Your task to perform on an android device: Go to Wikipedia Image 0: 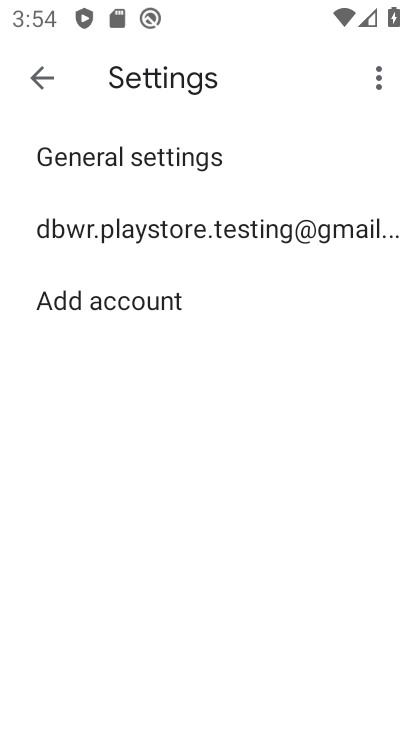
Step 0: press home button
Your task to perform on an android device: Go to Wikipedia Image 1: 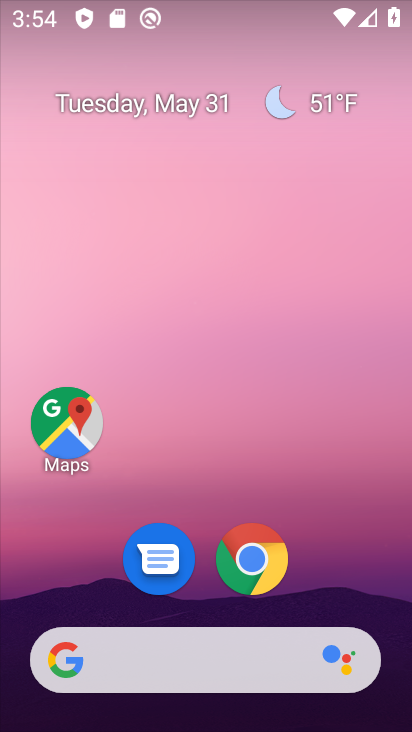
Step 1: click (246, 551)
Your task to perform on an android device: Go to Wikipedia Image 2: 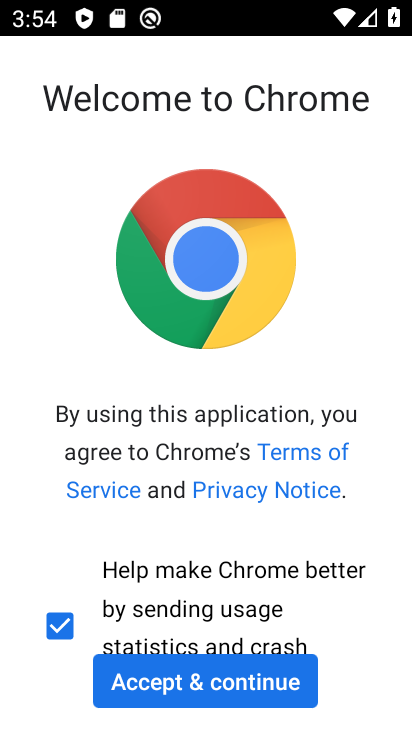
Step 2: click (219, 680)
Your task to perform on an android device: Go to Wikipedia Image 3: 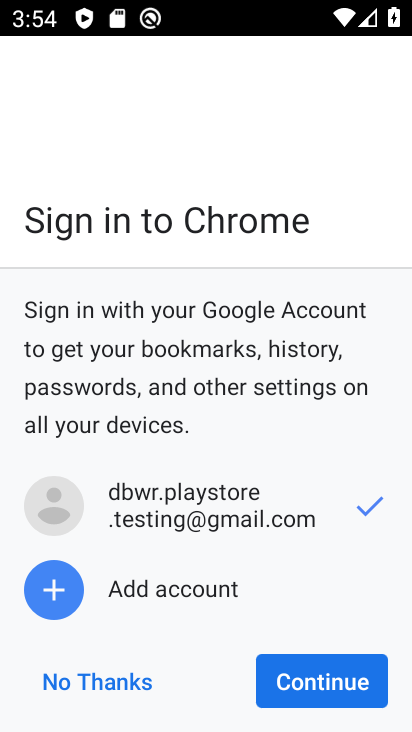
Step 3: click (343, 672)
Your task to perform on an android device: Go to Wikipedia Image 4: 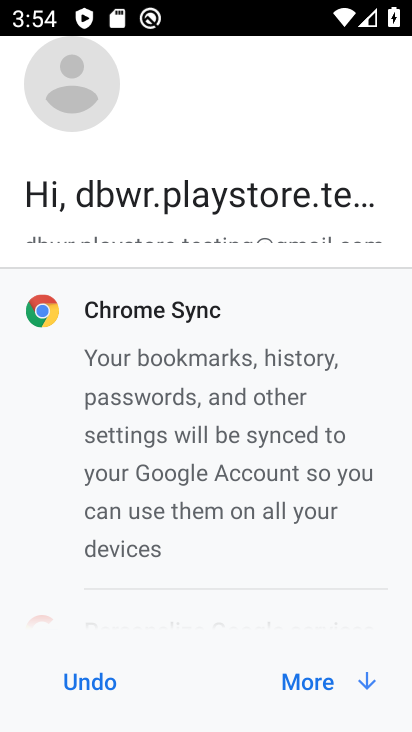
Step 4: click (344, 667)
Your task to perform on an android device: Go to Wikipedia Image 5: 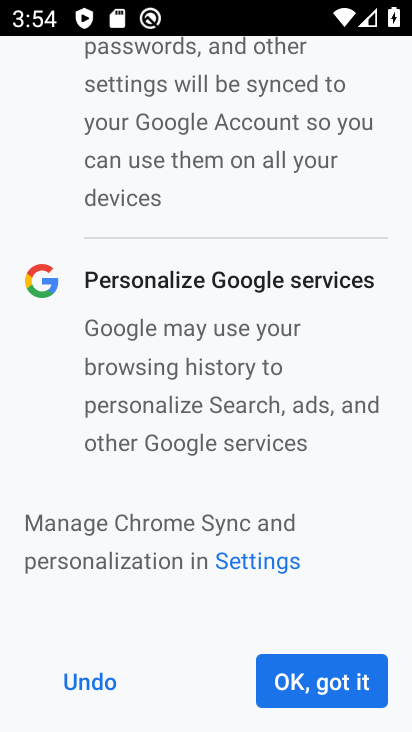
Step 5: click (344, 674)
Your task to perform on an android device: Go to Wikipedia Image 6: 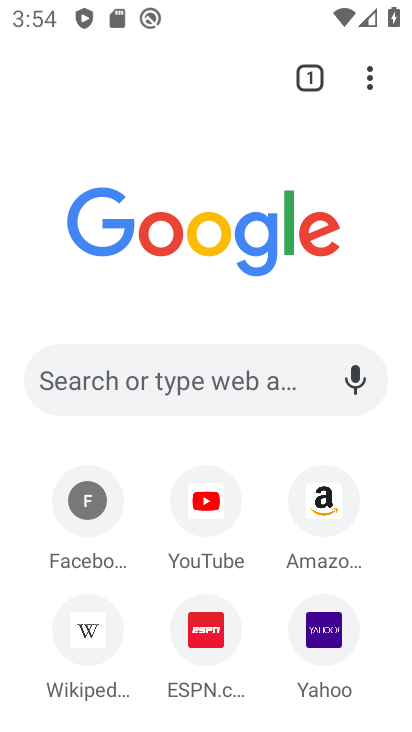
Step 6: click (77, 633)
Your task to perform on an android device: Go to Wikipedia Image 7: 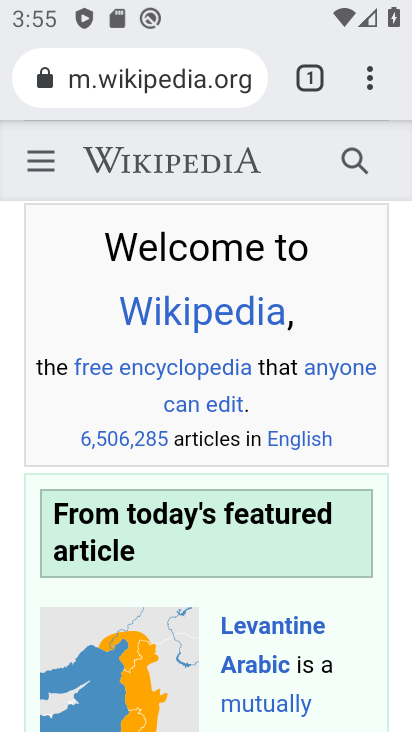
Step 7: task complete